Your task to perform on an android device: Go to Maps Image 0: 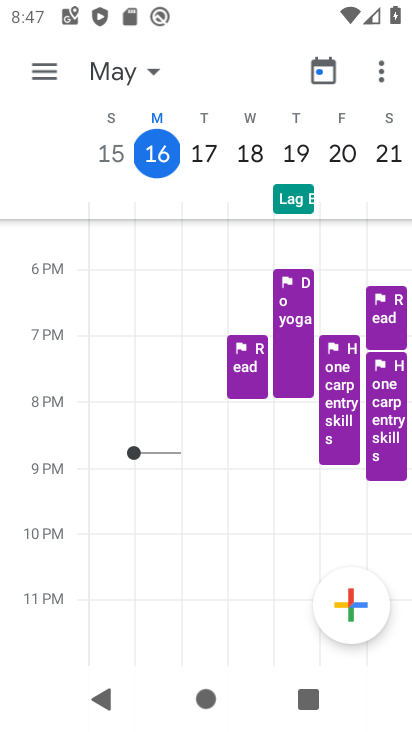
Step 0: press home button
Your task to perform on an android device: Go to Maps Image 1: 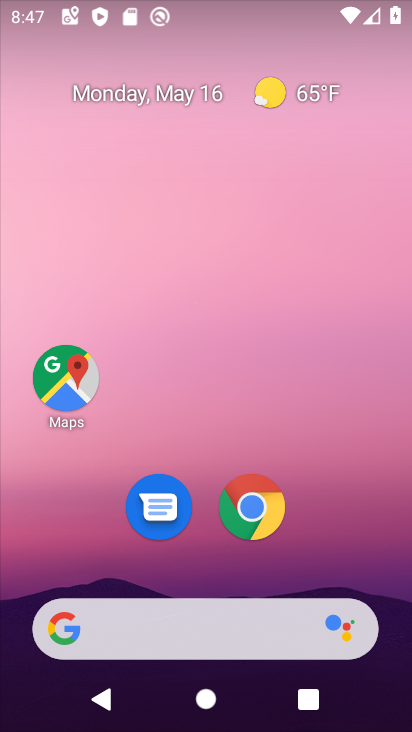
Step 1: click (55, 391)
Your task to perform on an android device: Go to Maps Image 2: 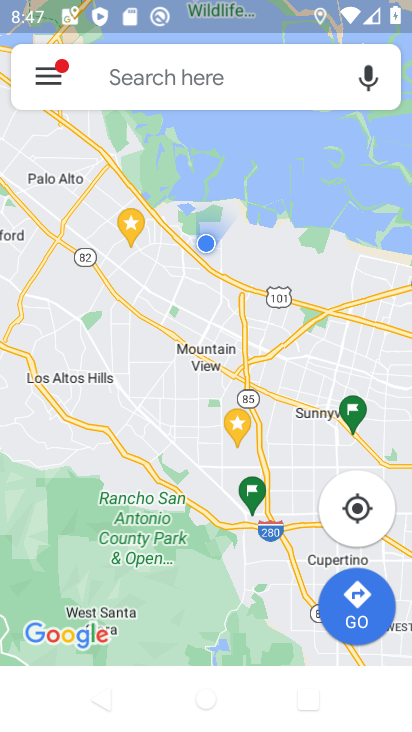
Step 2: task complete